Your task to perform on an android device: Open the map Image 0: 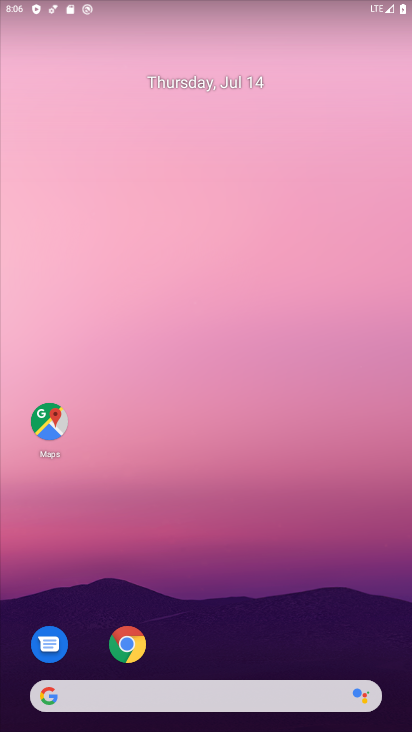
Step 0: click (242, 726)
Your task to perform on an android device: Open the map Image 1: 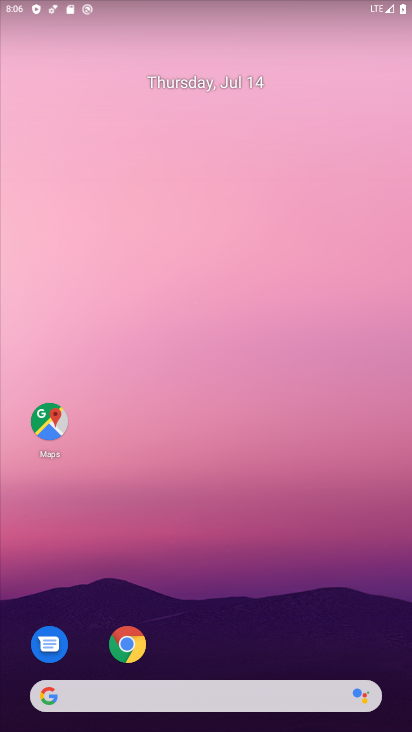
Step 1: drag from (200, 635) to (260, 218)
Your task to perform on an android device: Open the map Image 2: 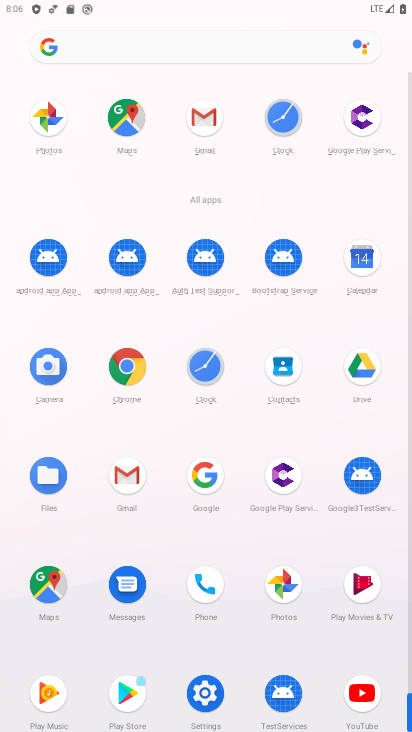
Step 2: drag from (223, 631) to (246, 287)
Your task to perform on an android device: Open the map Image 3: 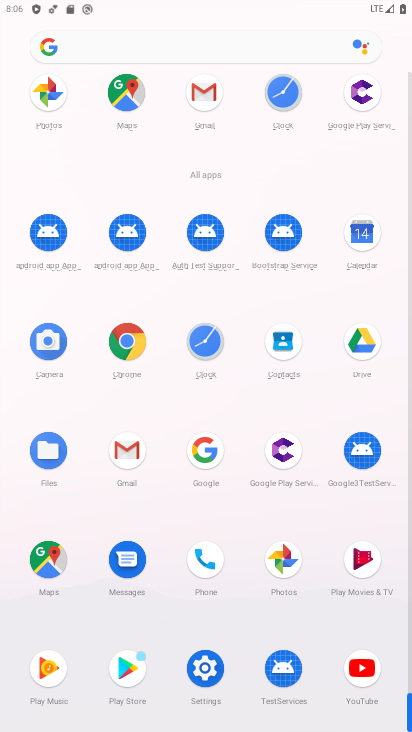
Step 3: drag from (250, 626) to (255, 287)
Your task to perform on an android device: Open the map Image 4: 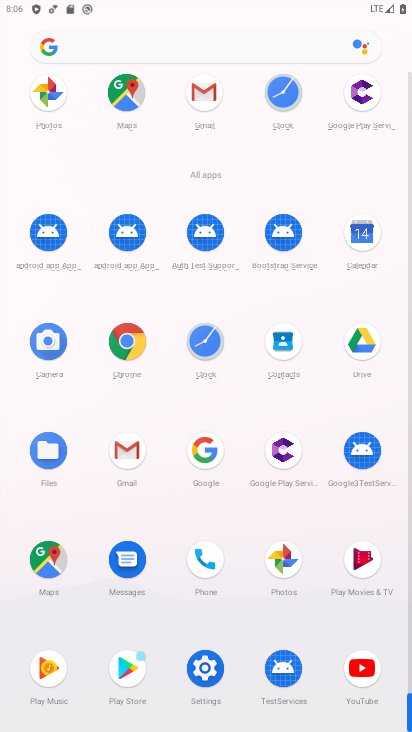
Step 4: click (47, 553)
Your task to perform on an android device: Open the map Image 5: 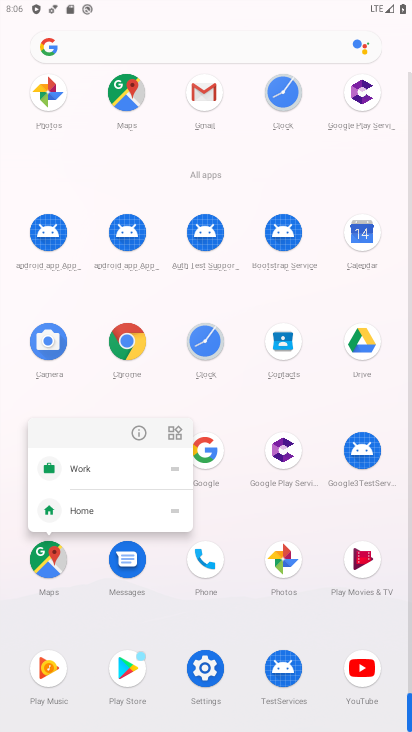
Step 5: click (139, 432)
Your task to perform on an android device: Open the map Image 6: 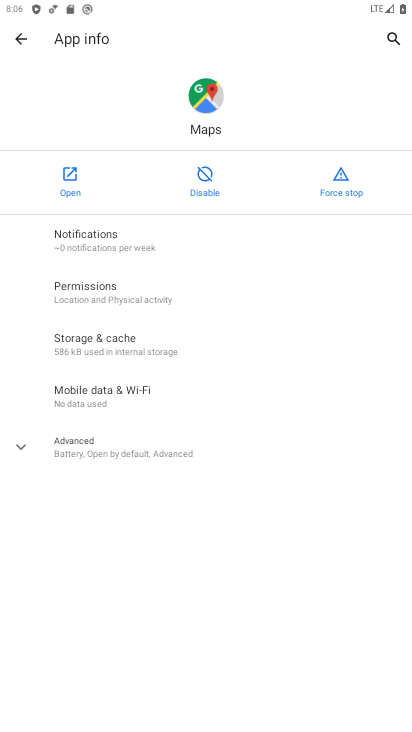
Step 6: click (68, 175)
Your task to perform on an android device: Open the map Image 7: 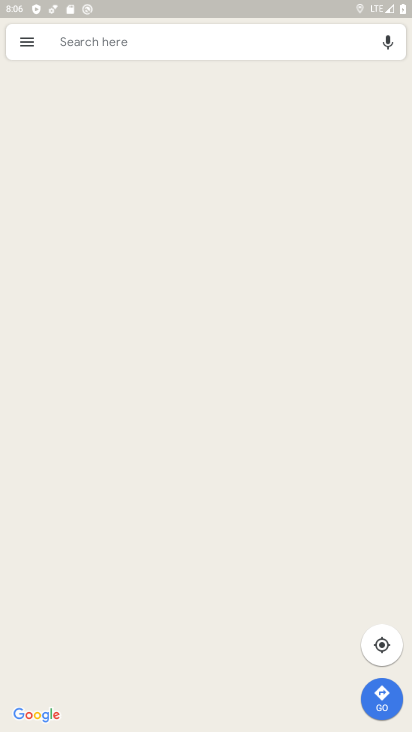
Step 7: task complete